Your task to perform on an android device: toggle airplane mode Image 0: 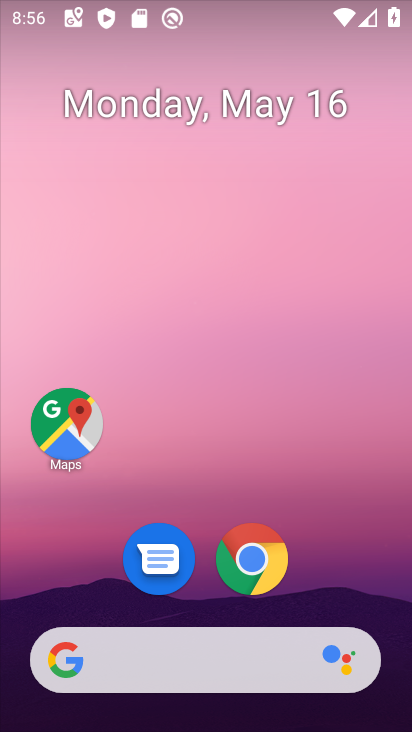
Step 0: drag from (331, 590) to (340, 57)
Your task to perform on an android device: toggle airplane mode Image 1: 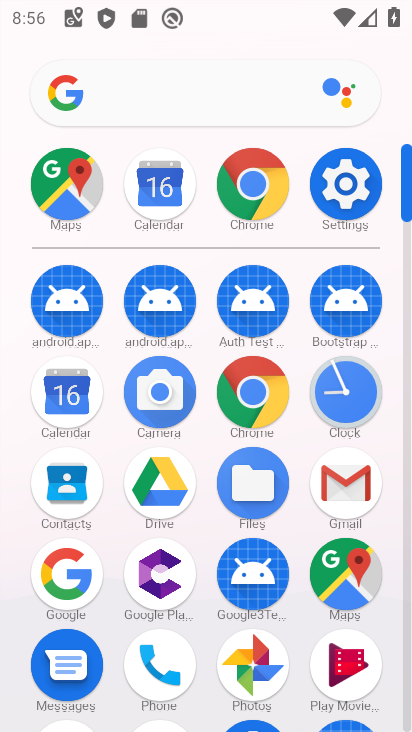
Step 1: click (344, 174)
Your task to perform on an android device: toggle airplane mode Image 2: 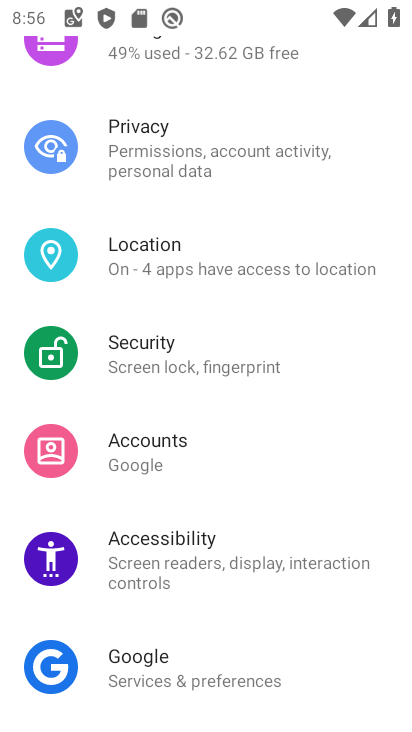
Step 2: drag from (315, 290) to (310, 457)
Your task to perform on an android device: toggle airplane mode Image 3: 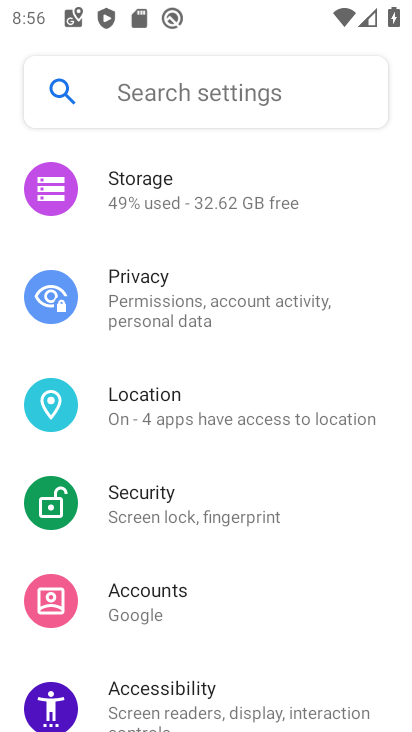
Step 3: drag from (246, 235) to (247, 460)
Your task to perform on an android device: toggle airplane mode Image 4: 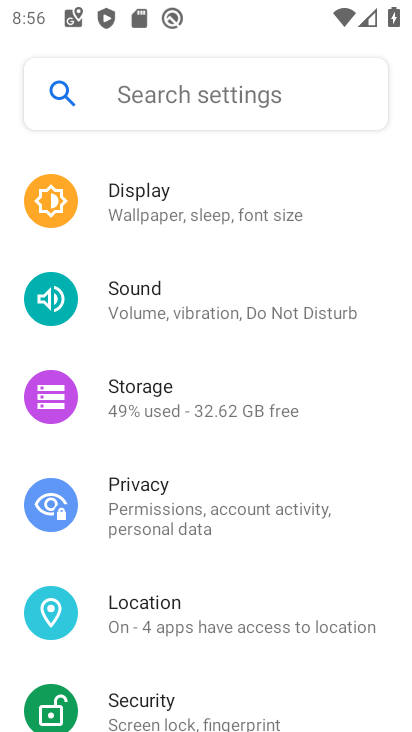
Step 4: drag from (268, 233) to (272, 418)
Your task to perform on an android device: toggle airplane mode Image 5: 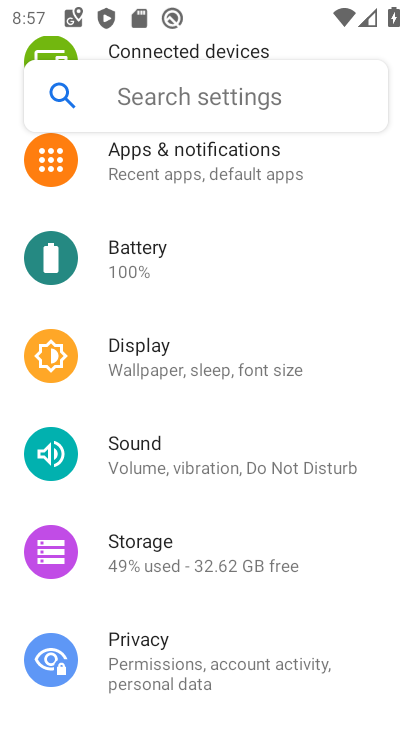
Step 5: drag from (217, 217) to (222, 441)
Your task to perform on an android device: toggle airplane mode Image 6: 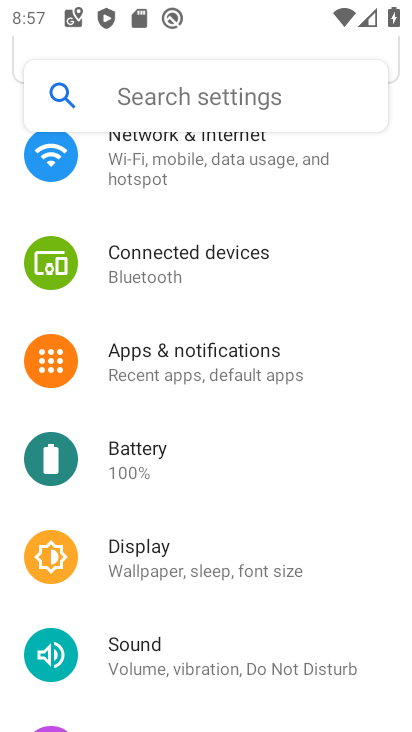
Step 6: drag from (237, 308) to (253, 461)
Your task to perform on an android device: toggle airplane mode Image 7: 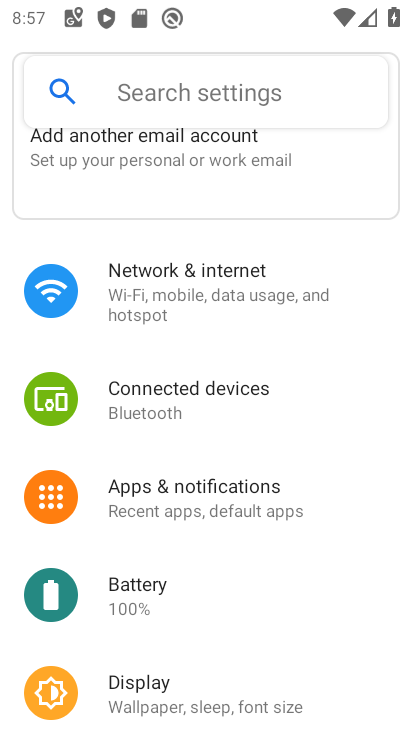
Step 7: click (258, 292)
Your task to perform on an android device: toggle airplane mode Image 8: 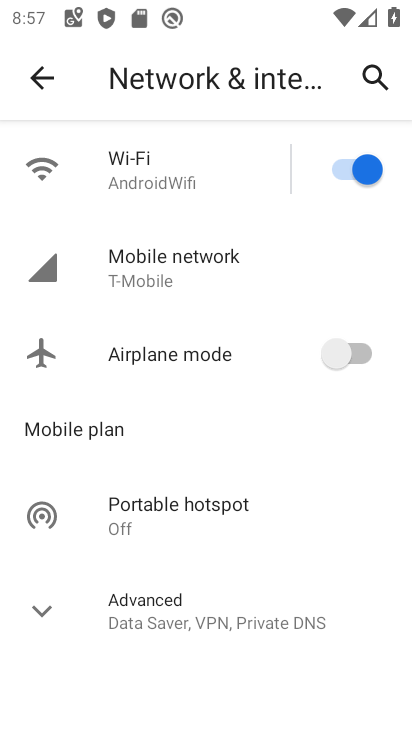
Step 8: click (332, 345)
Your task to perform on an android device: toggle airplane mode Image 9: 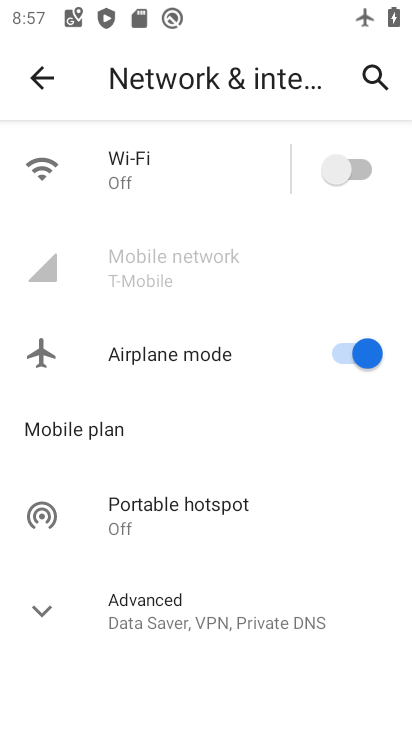
Step 9: task complete